Your task to perform on an android device: Do I have any events today? Image 0: 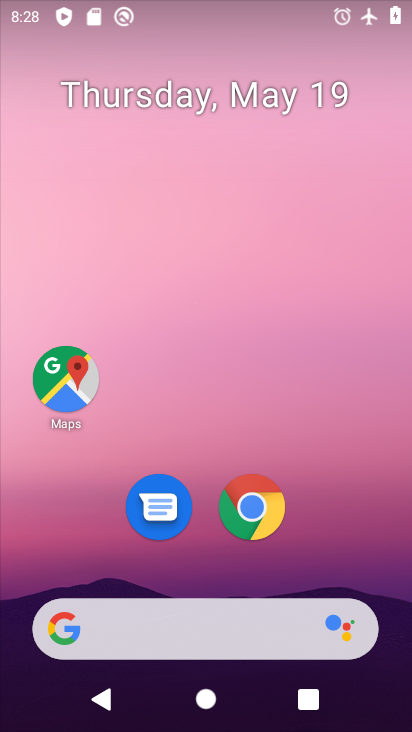
Step 0: drag from (232, 709) to (228, 256)
Your task to perform on an android device: Do I have any events today? Image 1: 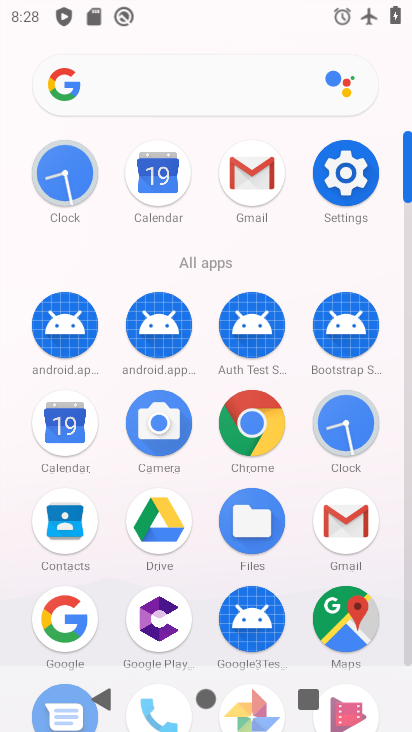
Step 1: click (64, 437)
Your task to perform on an android device: Do I have any events today? Image 2: 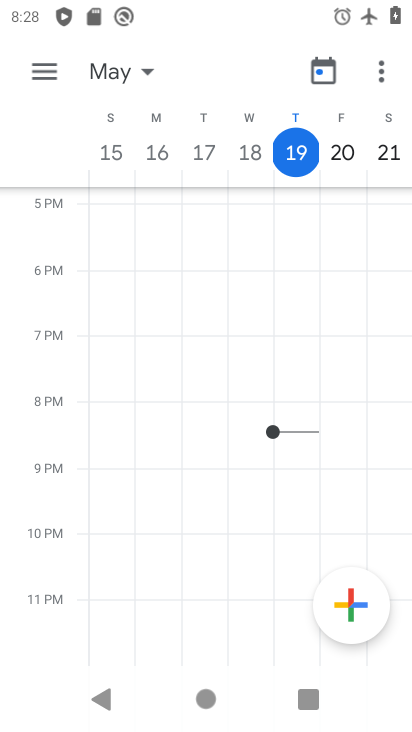
Step 2: click (41, 70)
Your task to perform on an android device: Do I have any events today? Image 3: 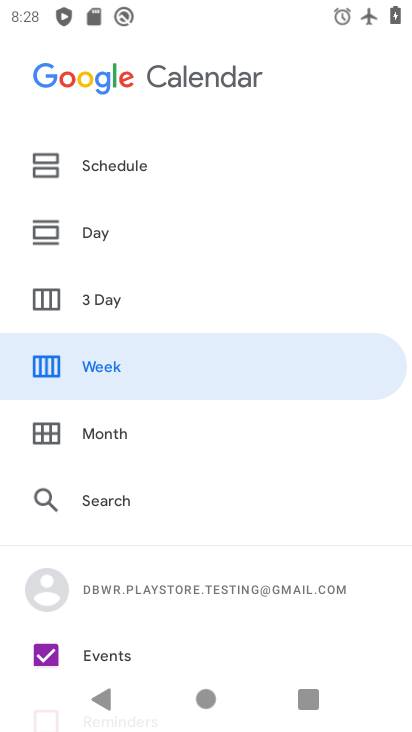
Step 3: click (104, 163)
Your task to perform on an android device: Do I have any events today? Image 4: 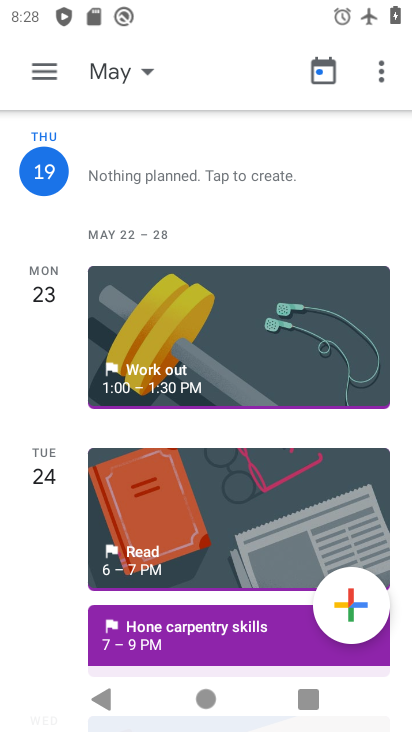
Step 4: task complete